Your task to perform on an android device: uninstall "DoorDash - Dasher" Image 0: 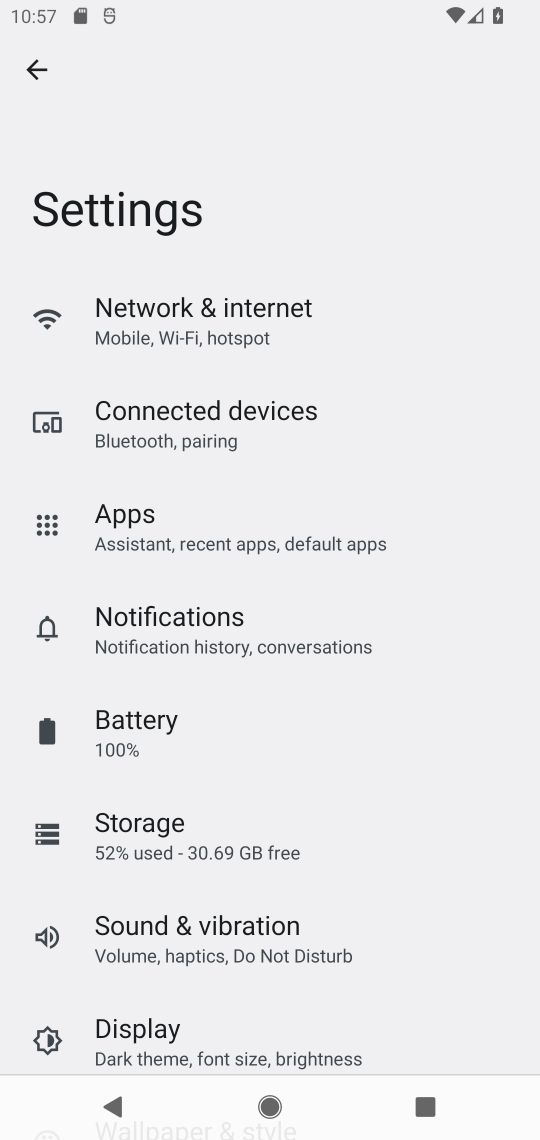
Step 0: press home button
Your task to perform on an android device: uninstall "DoorDash - Dasher" Image 1: 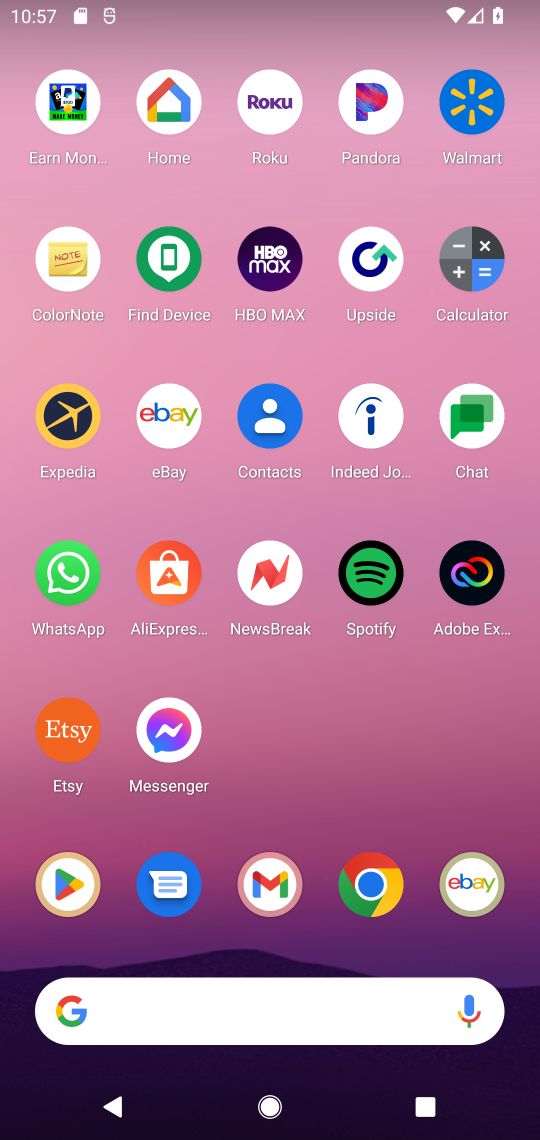
Step 1: click (35, 901)
Your task to perform on an android device: uninstall "DoorDash - Dasher" Image 2: 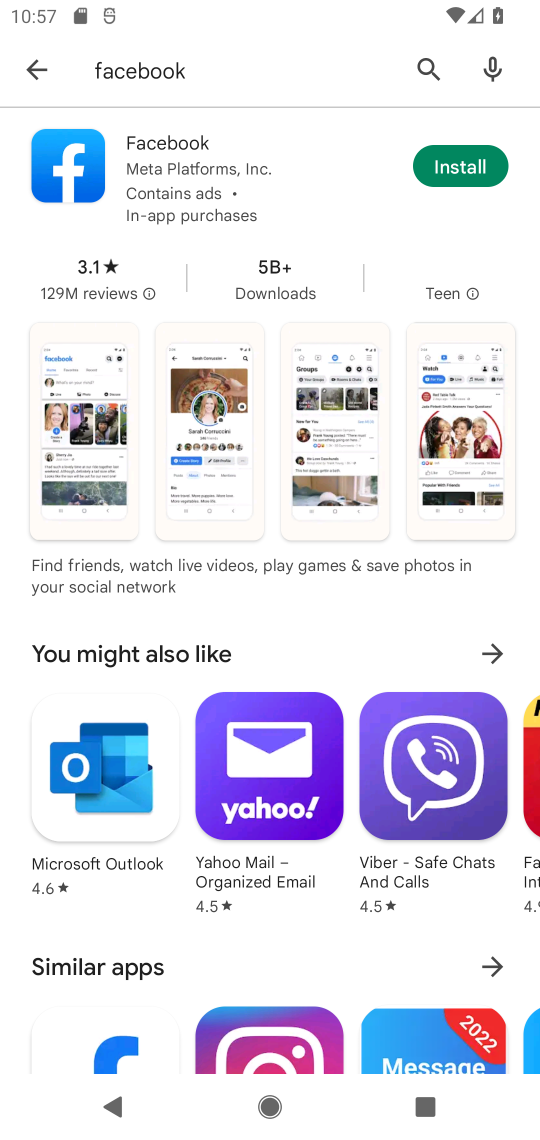
Step 2: click (231, 79)
Your task to perform on an android device: uninstall "DoorDash - Dasher" Image 3: 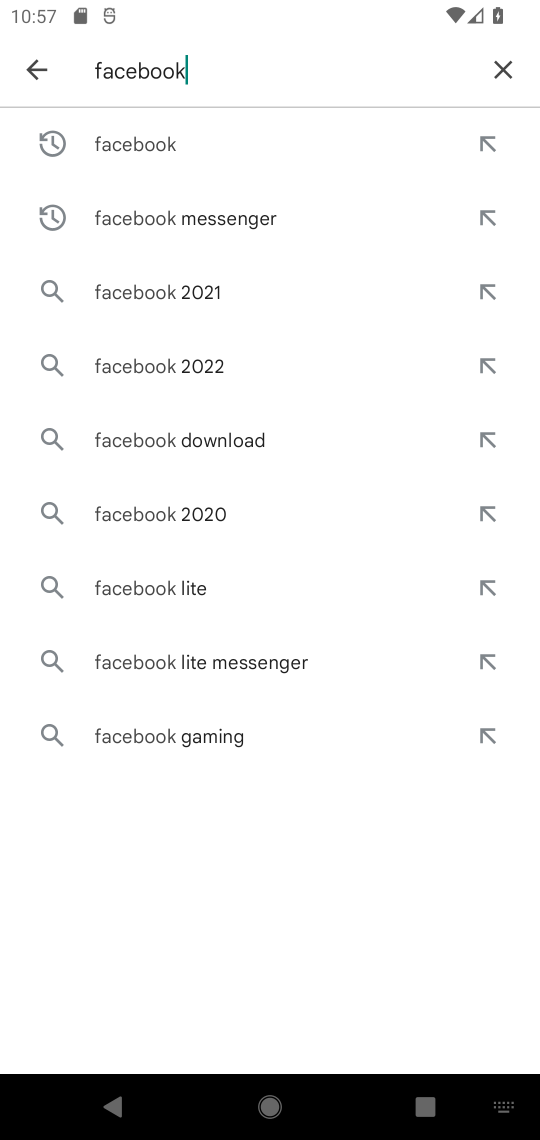
Step 3: click (502, 77)
Your task to perform on an android device: uninstall "DoorDash - Dasher" Image 4: 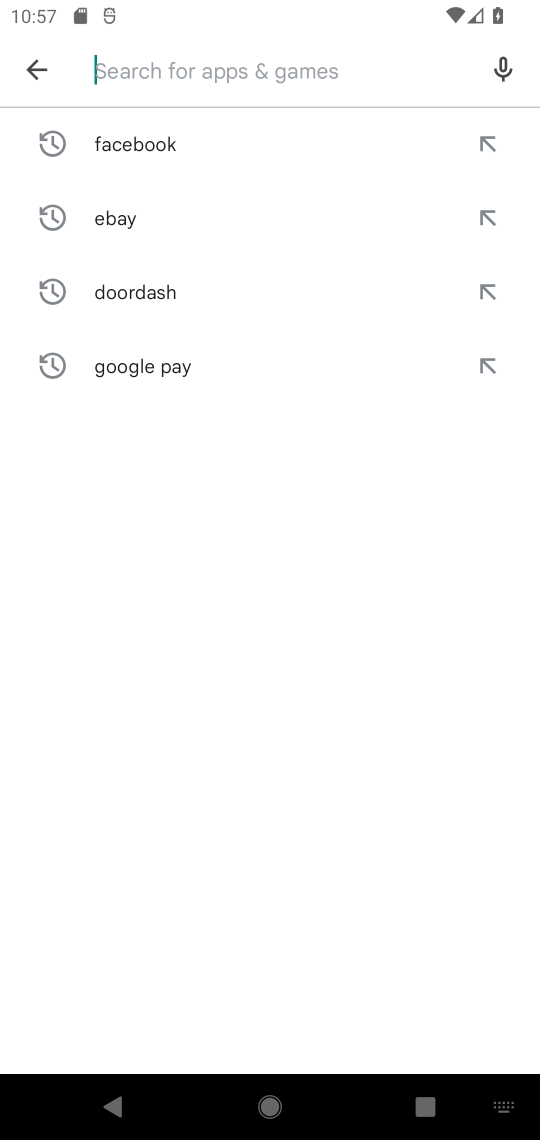
Step 4: type "doorDash -dasher"
Your task to perform on an android device: uninstall "DoorDash - Dasher" Image 5: 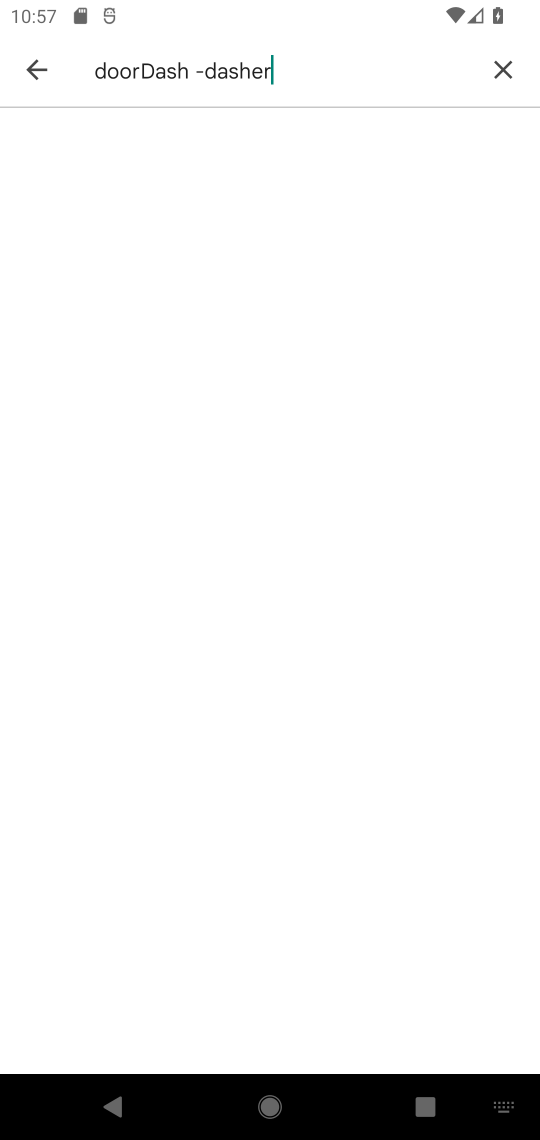
Step 5: click (212, 111)
Your task to perform on an android device: uninstall "DoorDash - Dasher" Image 6: 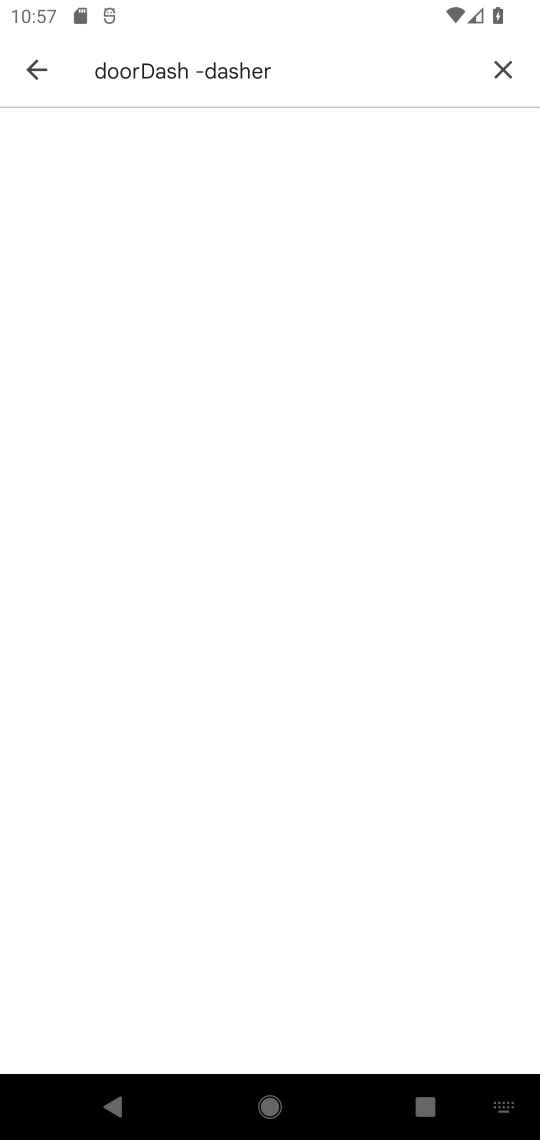
Step 6: click (42, 61)
Your task to perform on an android device: uninstall "DoorDash - Dasher" Image 7: 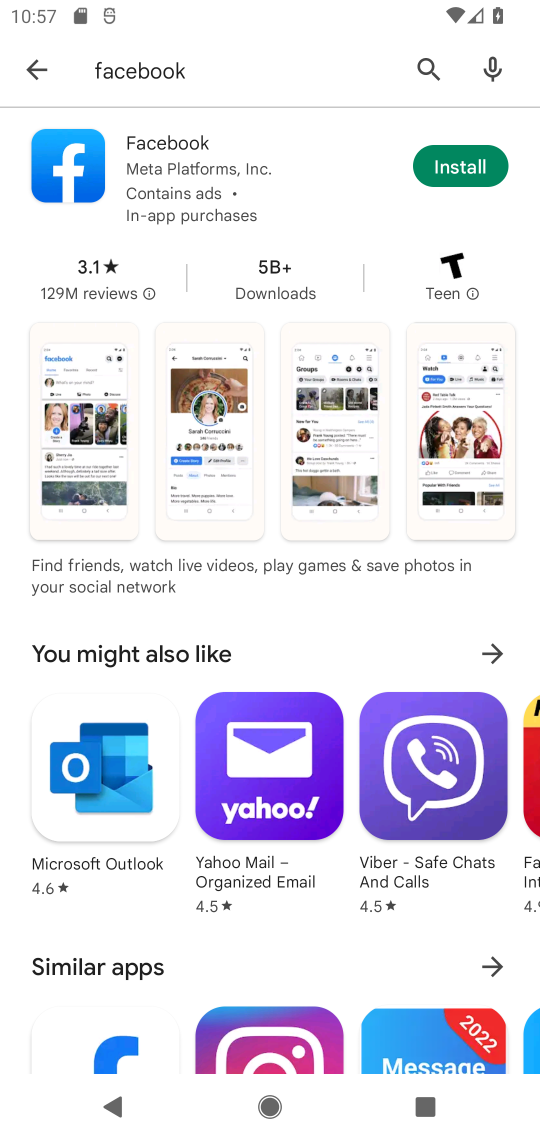
Step 7: click (33, 82)
Your task to perform on an android device: uninstall "DoorDash - Dasher" Image 8: 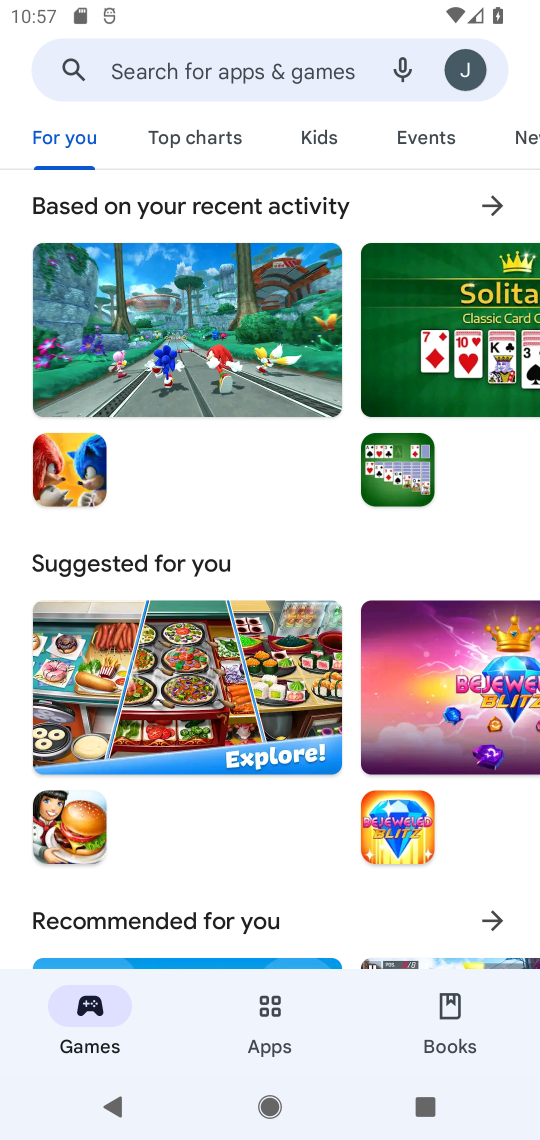
Step 8: click (265, 65)
Your task to perform on an android device: uninstall "DoorDash - Dasher" Image 9: 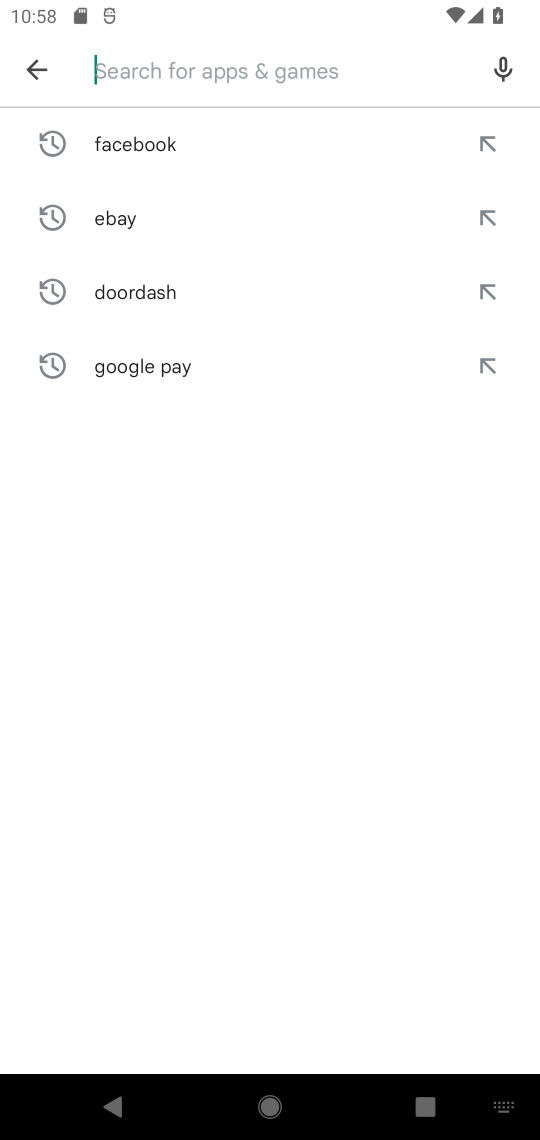
Step 9: type "DoorDash-Dasher"
Your task to perform on an android device: uninstall "DoorDash - Dasher" Image 10: 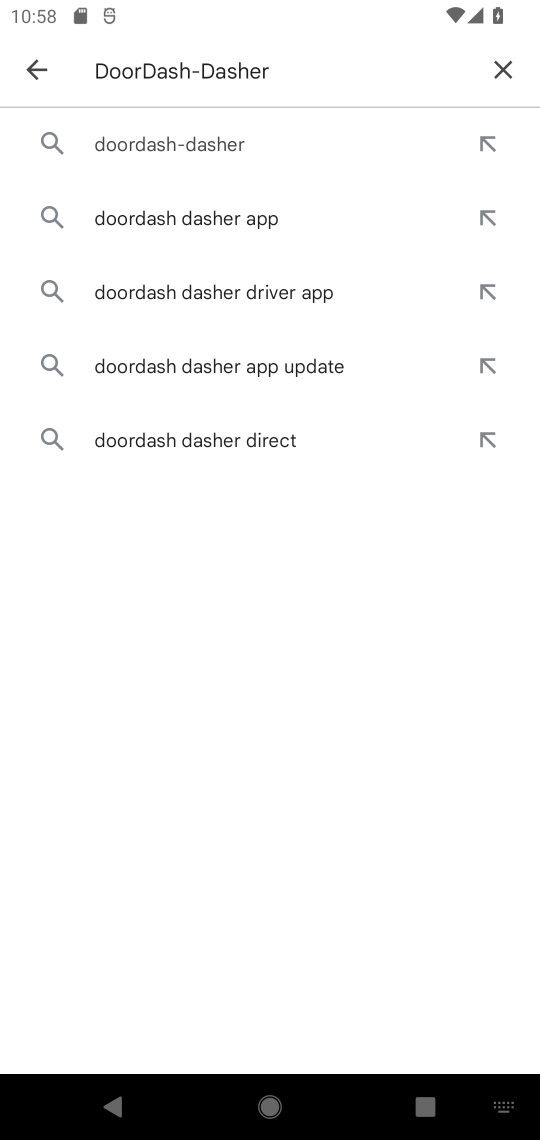
Step 10: click (146, 146)
Your task to perform on an android device: uninstall "DoorDash - Dasher" Image 11: 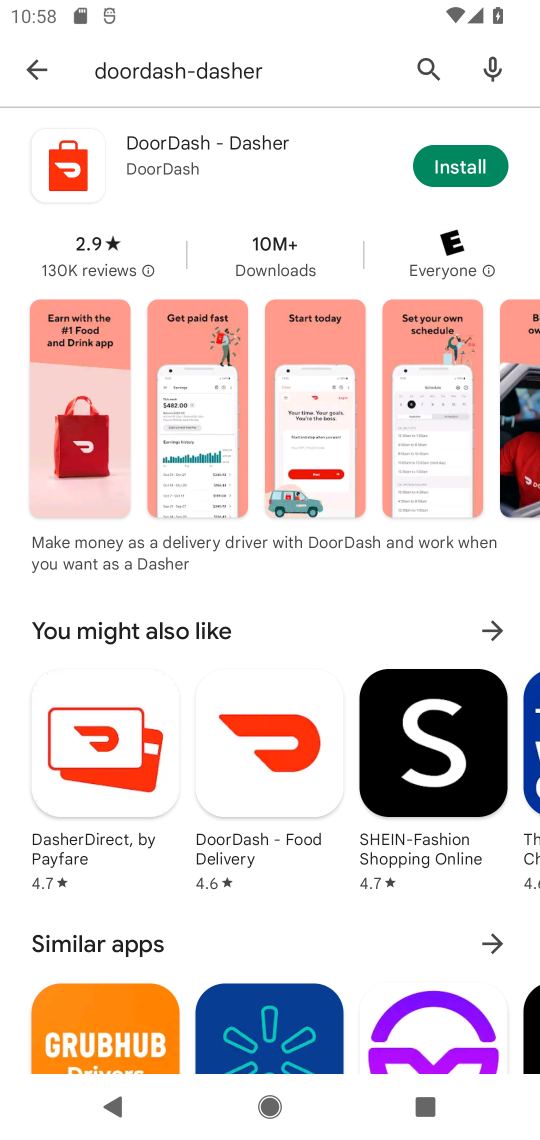
Step 11: task complete